Your task to perform on an android device: turn off picture-in-picture Image 0: 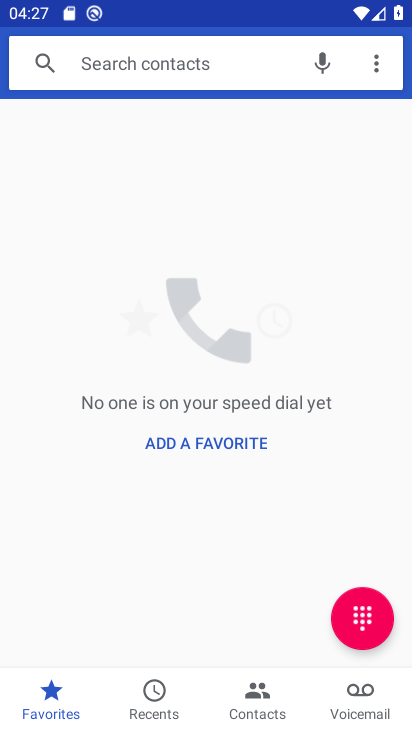
Step 0: press home button
Your task to perform on an android device: turn off picture-in-picture Image 1: 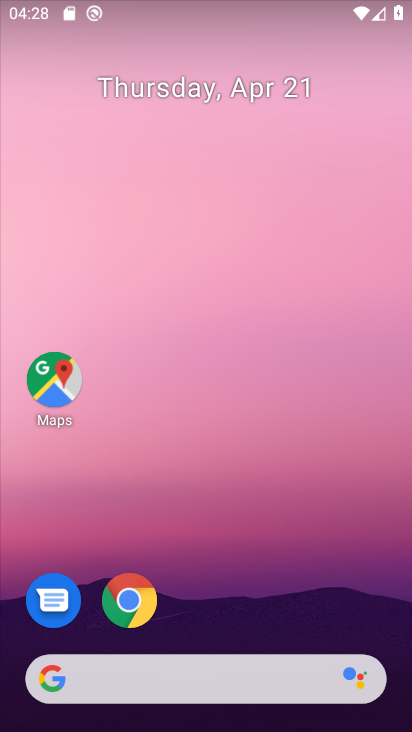
Step 1: click (128, 607)
Your task to perform on an android device: turn off picture-in-picture Image 2: 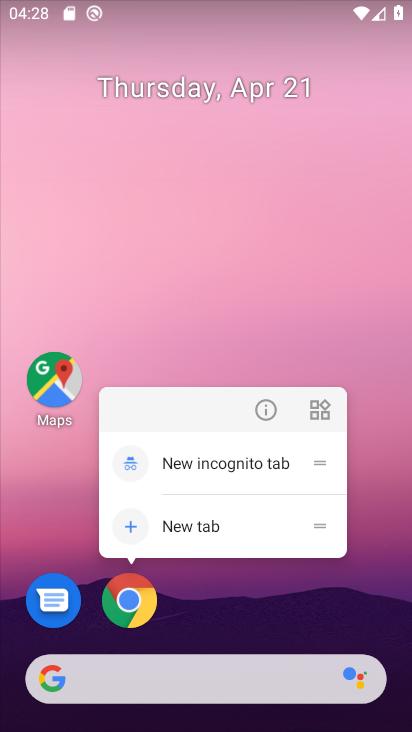
Step 2: click (263, 408)
Your task to perform on an android device: turn off picture-in-picture Image 3: 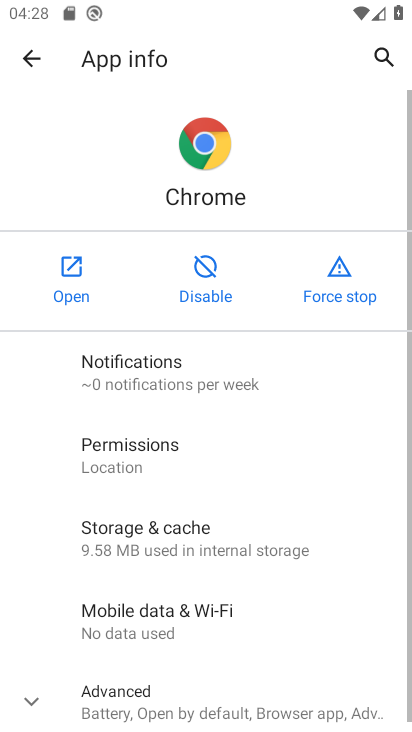
Step 3: drag from (323, 576) to (300, 115)
Your task to perform on an android device: turn off picture-in-picture Image 4: 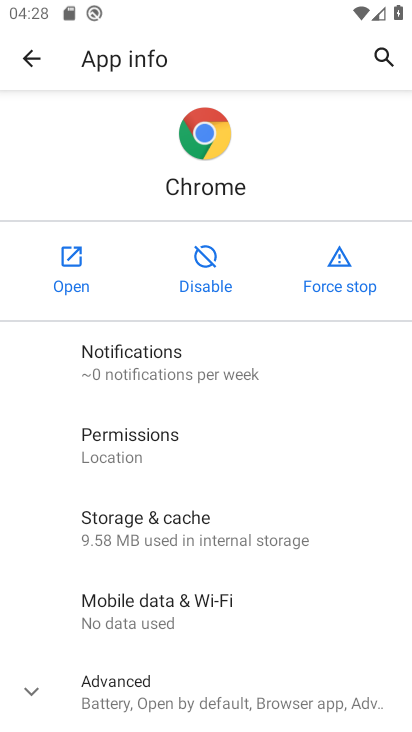
Step 4: click (32, 696)
Your task to perform on an android device: turn off picture-in-picture Image 5: 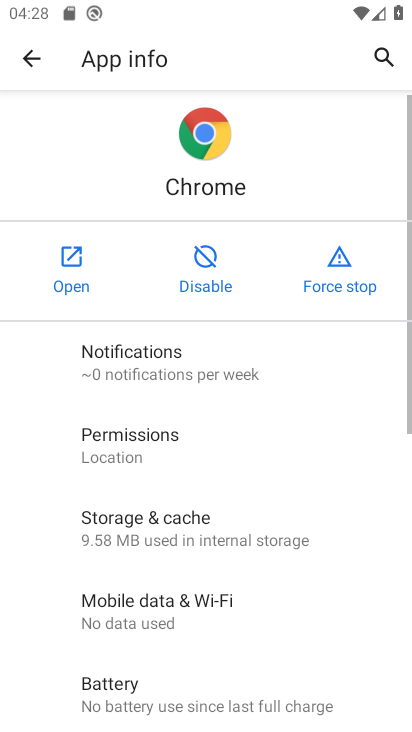
Step 5: drag from (205, 483) to (176, 189)
Your task to perform on an android device: turn off picture-in-picture Image 6: 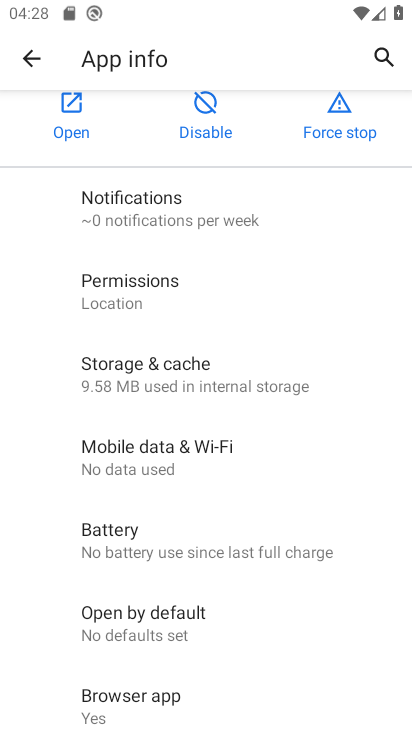
Step 6: drag from (247, 618) to (227, 224)
Your task to perform on an android device: turn off picture-in-picture Image 7: 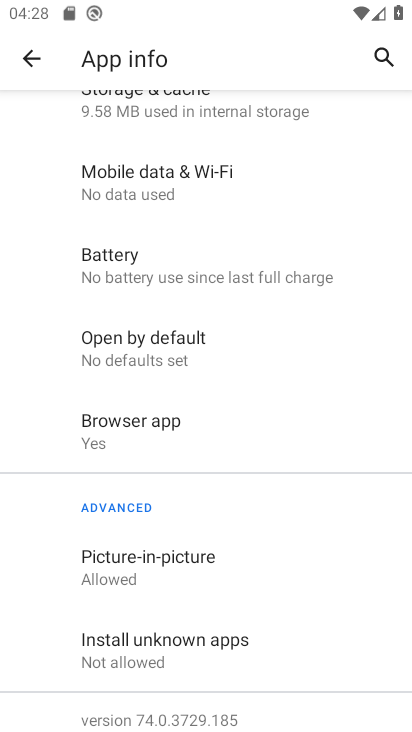
Step 7: click (122, 578)
Your task to perform on an android device: turn off picture-in-picture Image 8: 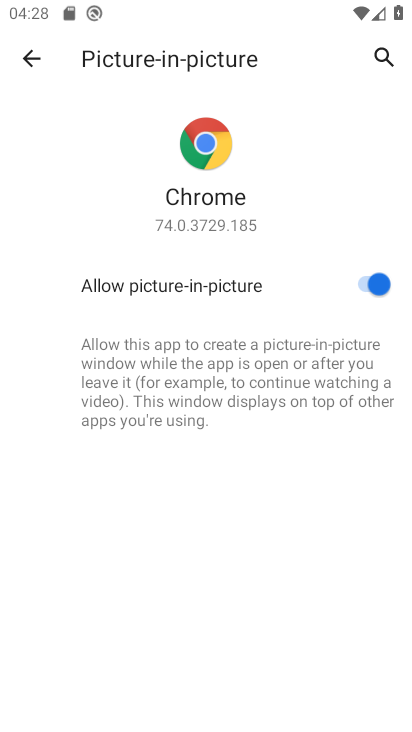
Step 8: click (372, 286)
Your task to perform on an android device: turn off picture-in-picture Image 9: 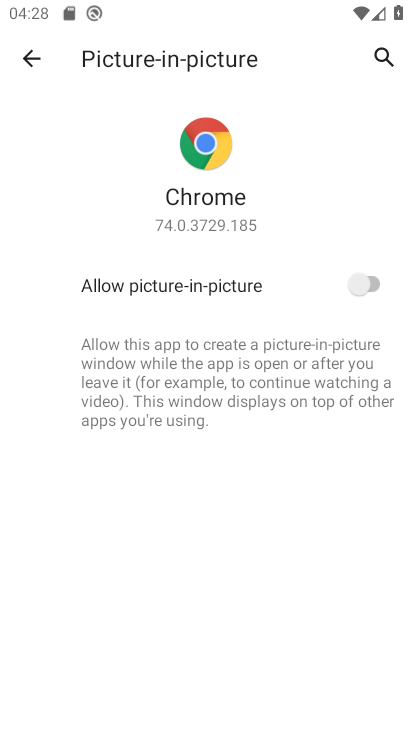
Step 9: task complete